Your task to perform on an android device: open device folders in google photos Image 0: 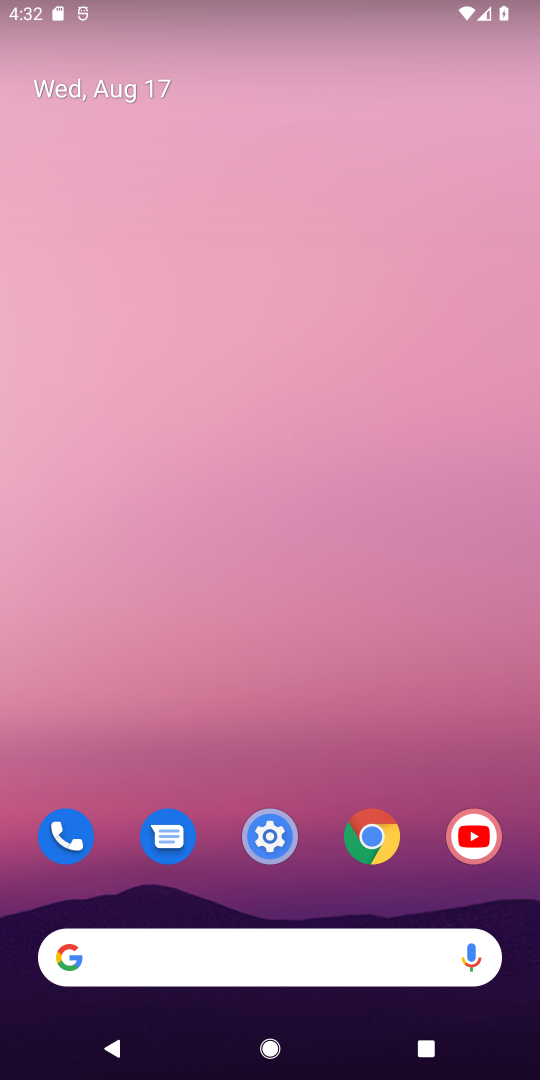
Step 0: press home button
Your task to perform on an android device: open device folders in google photos Image 1: 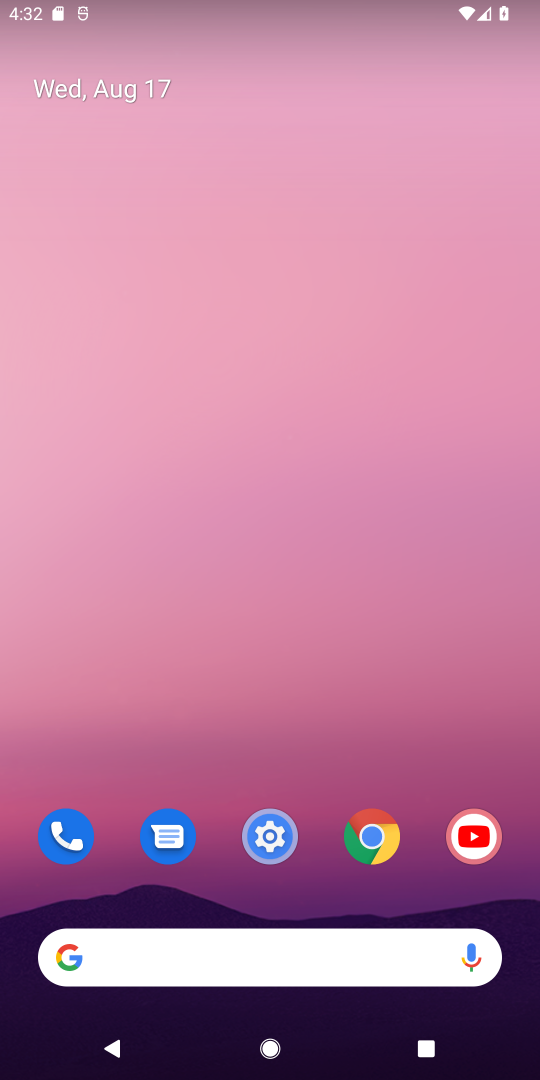
Step 1: drag from (290, 931) to (497, 192)
Your task to perform on an android device: open device folders in google photos Image 2: 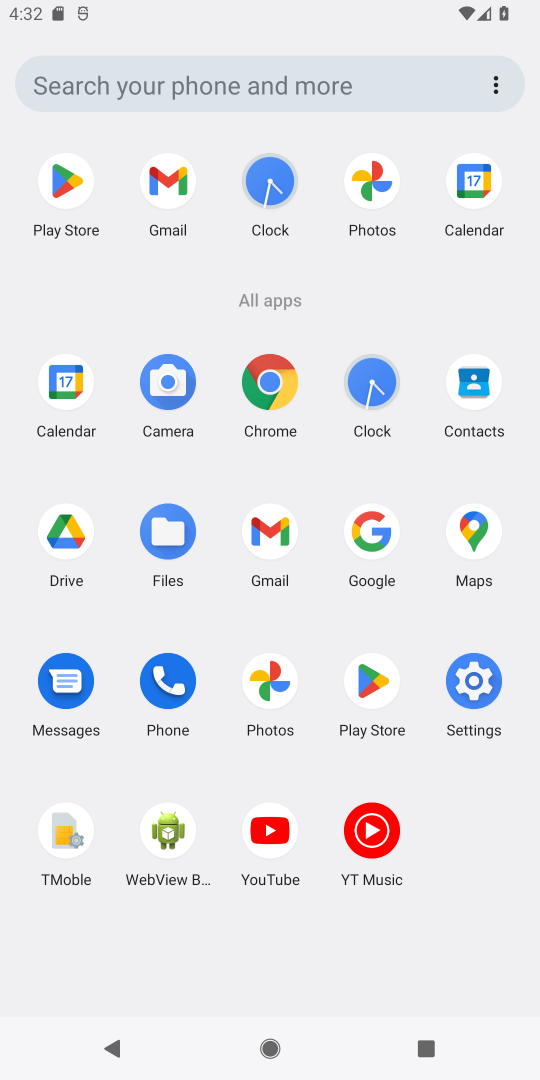
Step 2: click (278, 677)
Your task to perform on an android device: open device folders in google photos Image 3: 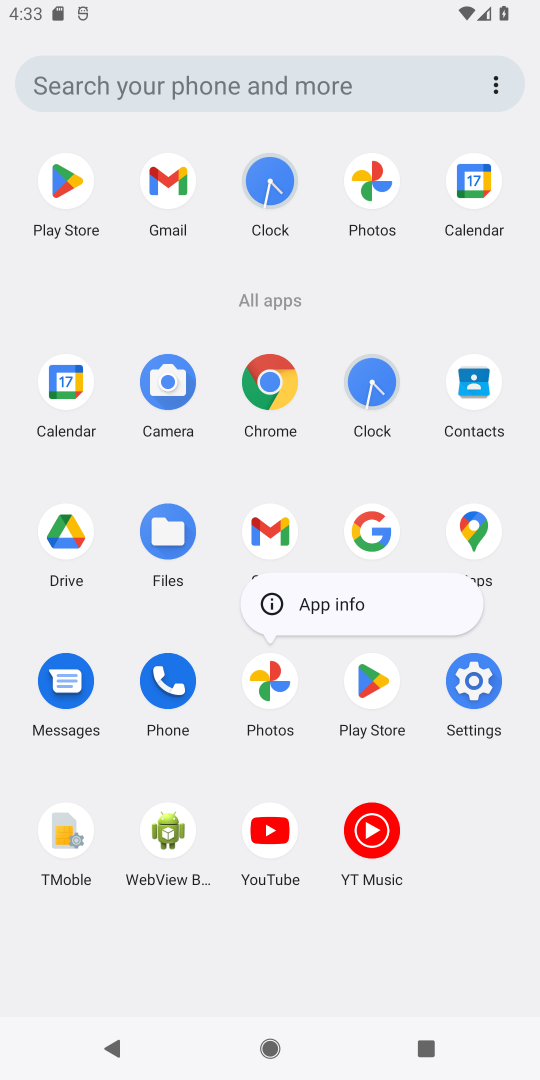
Step 3: click (266, 681)
Your task to perform on an android device: open device folders in google photos Image 4: 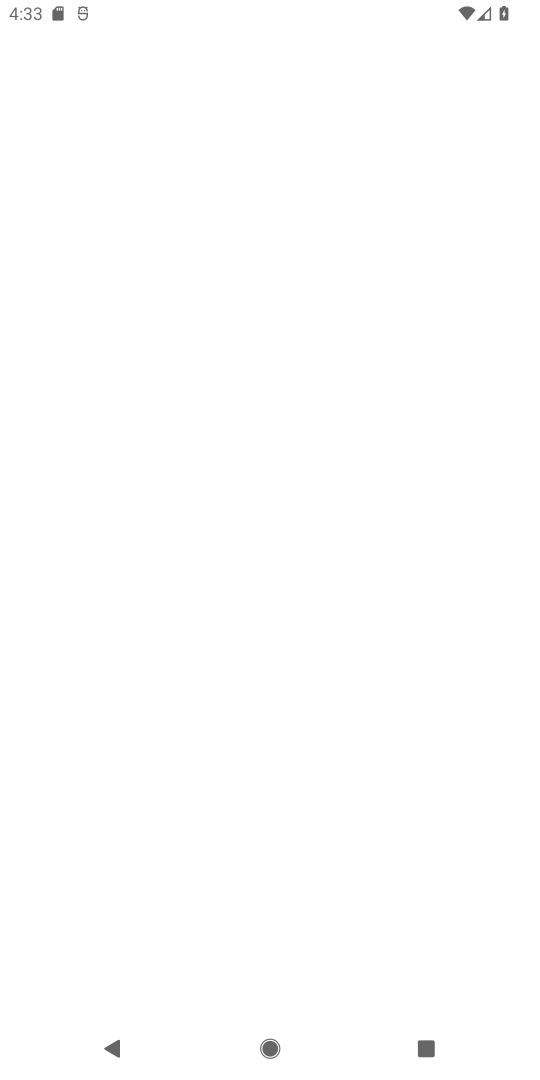
Step 4: drag from (212, 853) to (264, 742)
Your task to perform on an android device: open device folders in google photos Image 5: 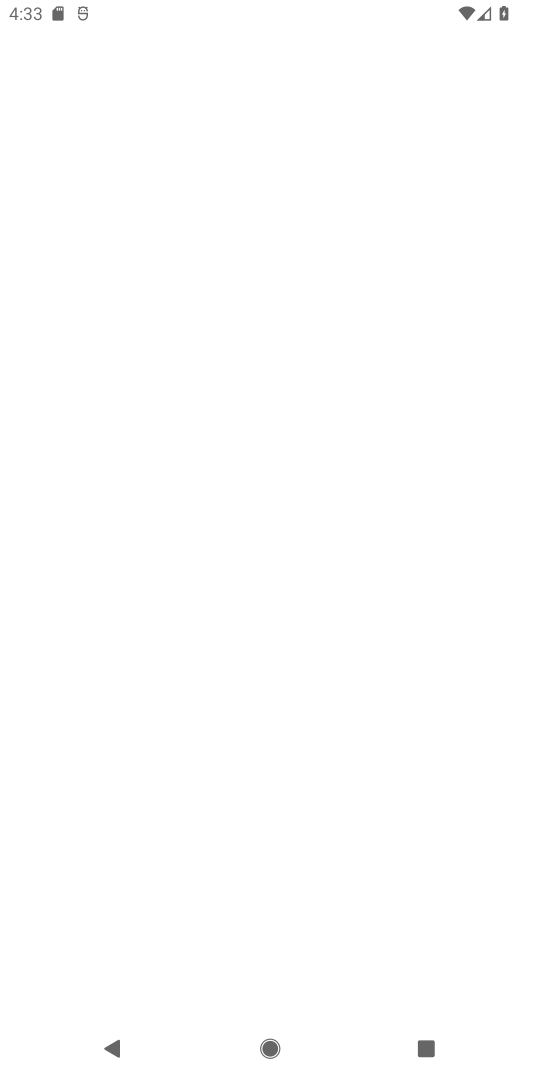
Step 5: press home button
Your task to perform on an android device: open device folders in google photos Image 6: 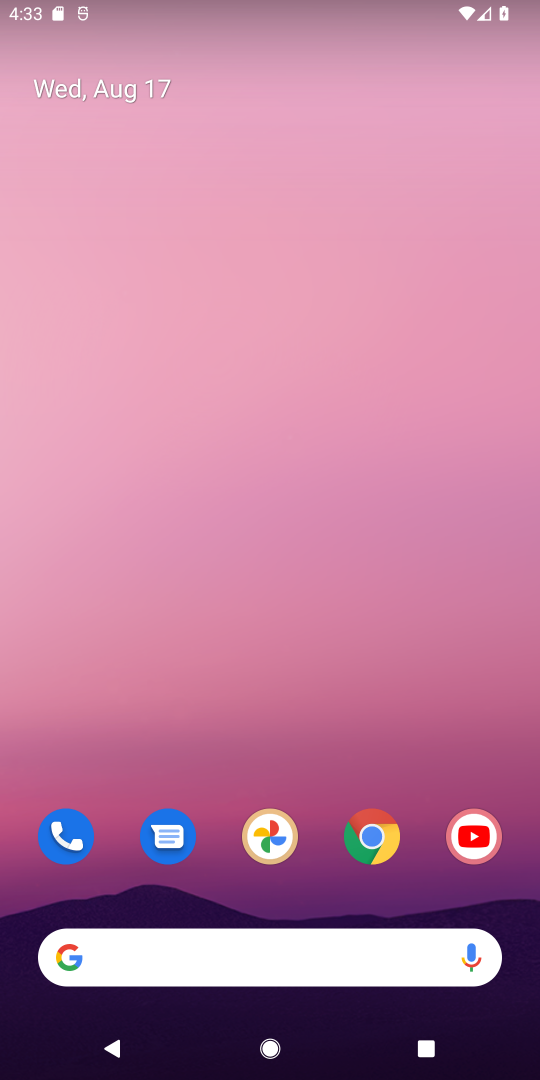
Step 6: click (266, 836)
Your task to perform on an android device: open device folders in google photos Image 7: 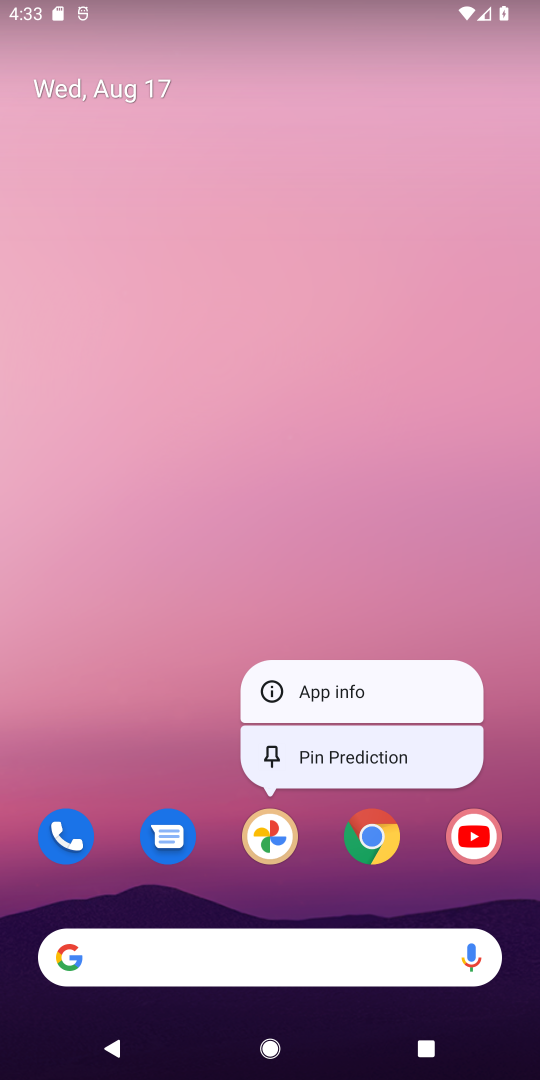
Step 7: click (266, 836)
Your task to perform on an android device: open device folders in google photos Image 8: 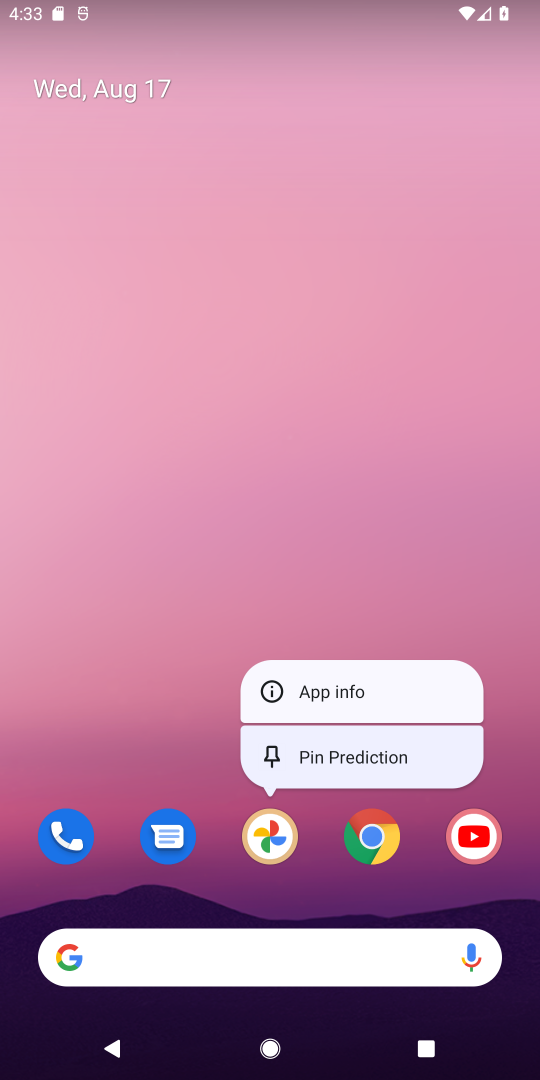
Step 8: click (272, 842)
Your task to perform on an android device: open device folders in google photos Image 9: 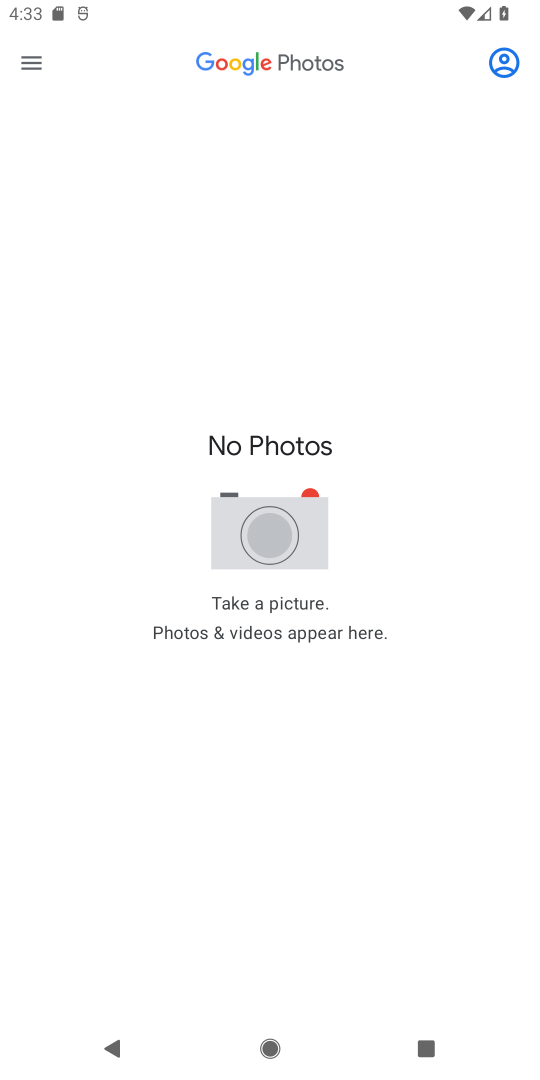
Step 9: click (39, 61)
Your task to perform on an android device: open device folders in google photos Image 10: 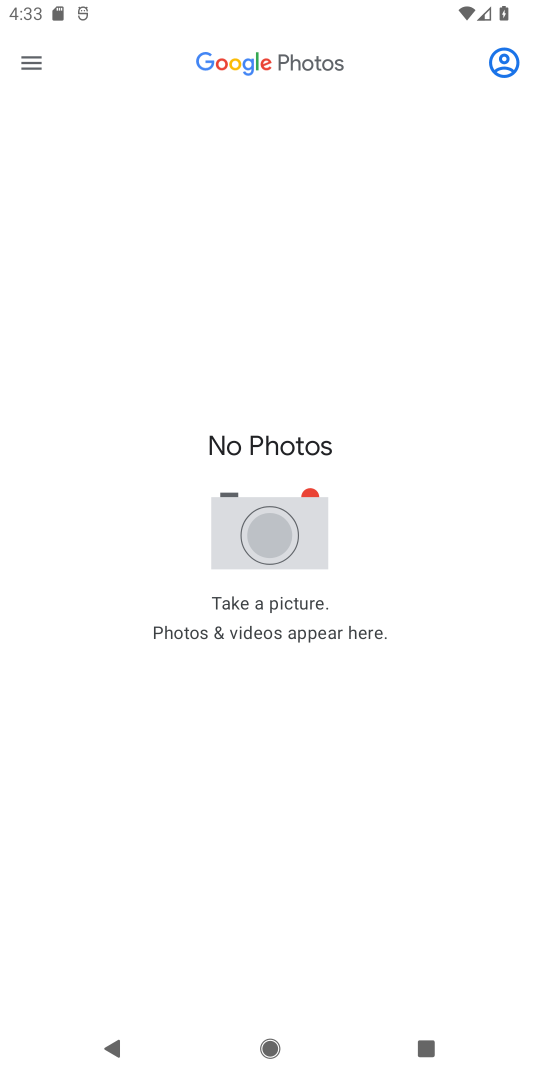
Step 10: click (26, 55)
Your task to perform on an android device: open device folders in google photos Image 11: 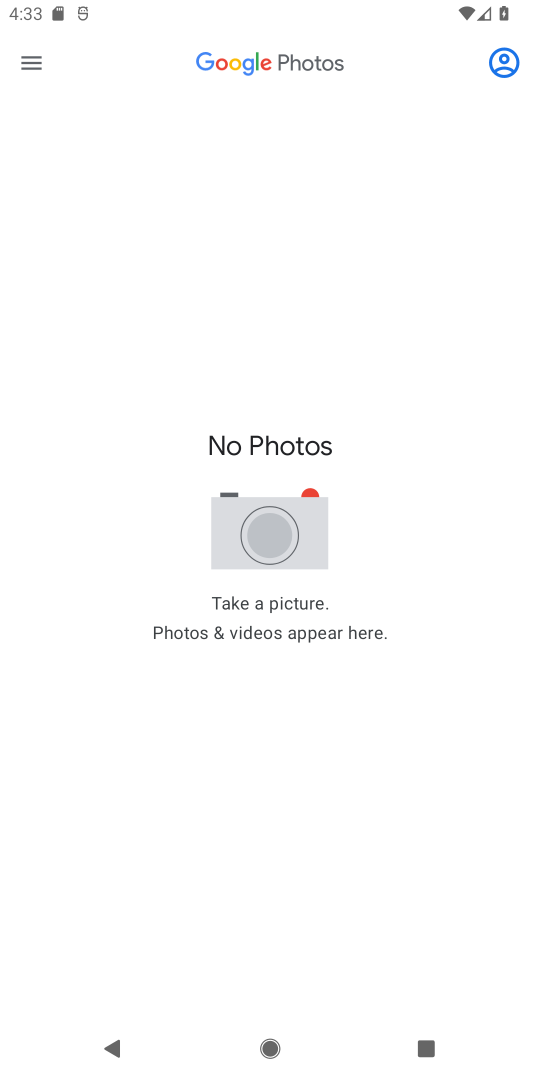
Step 11: click (34, 62)
Your task to perform on an android device: open device folders in google photos Image 12: 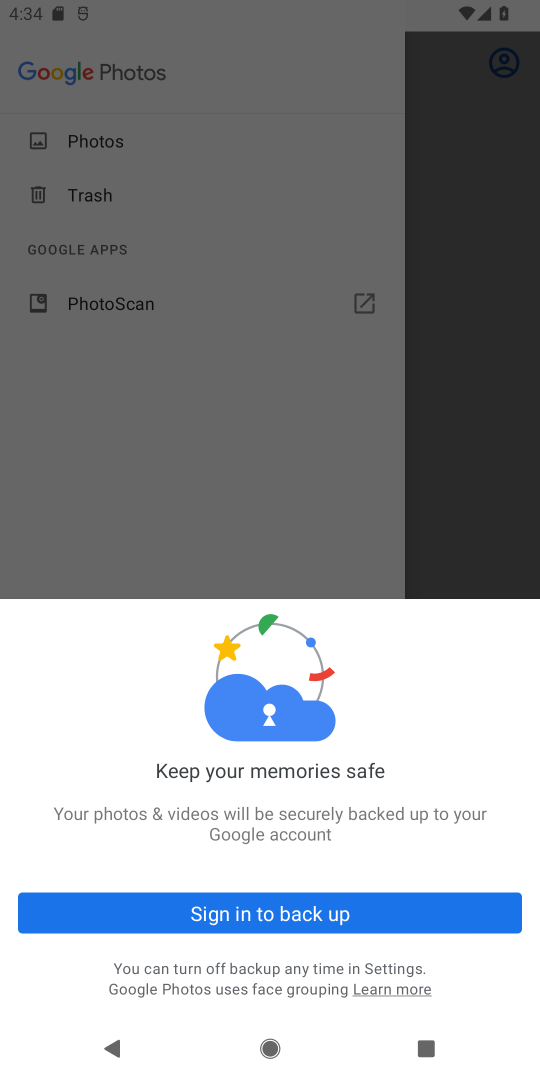
Step 12: click (397, 902)
Your task to perform on an android device: open device folders in google photos Image 13: 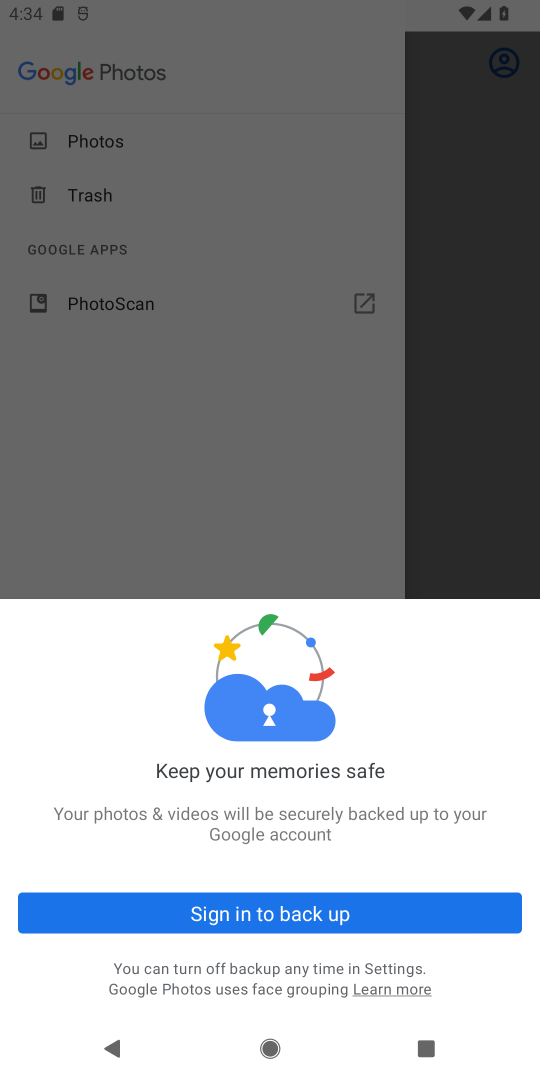
Step 13: click (380, 912)
Your task to perform on an android device: open device folders in google photos Image 14: 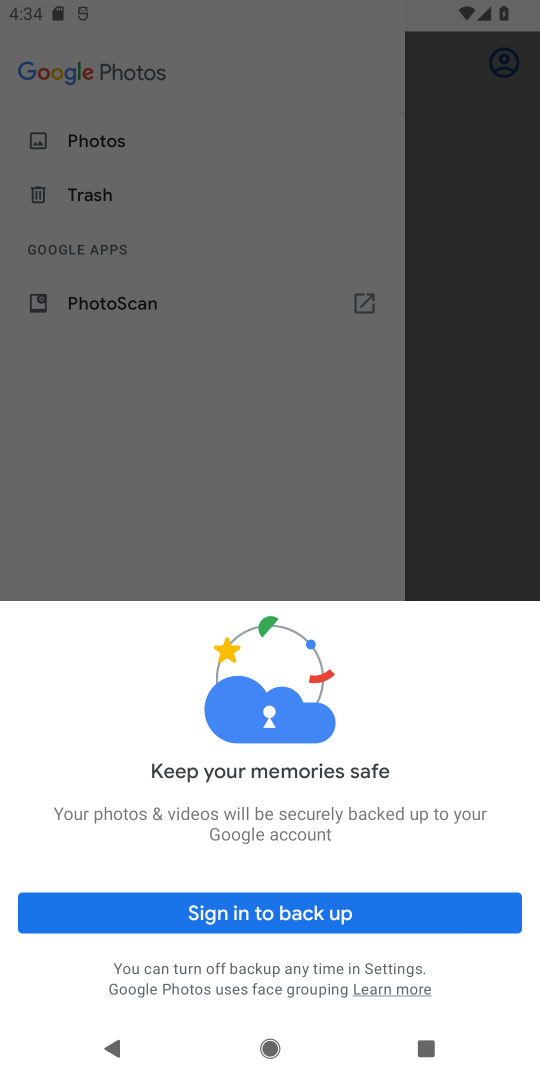
Step 14: click (293, 922)
Your task to perform on an android device: open device folders in google photos Image 15: 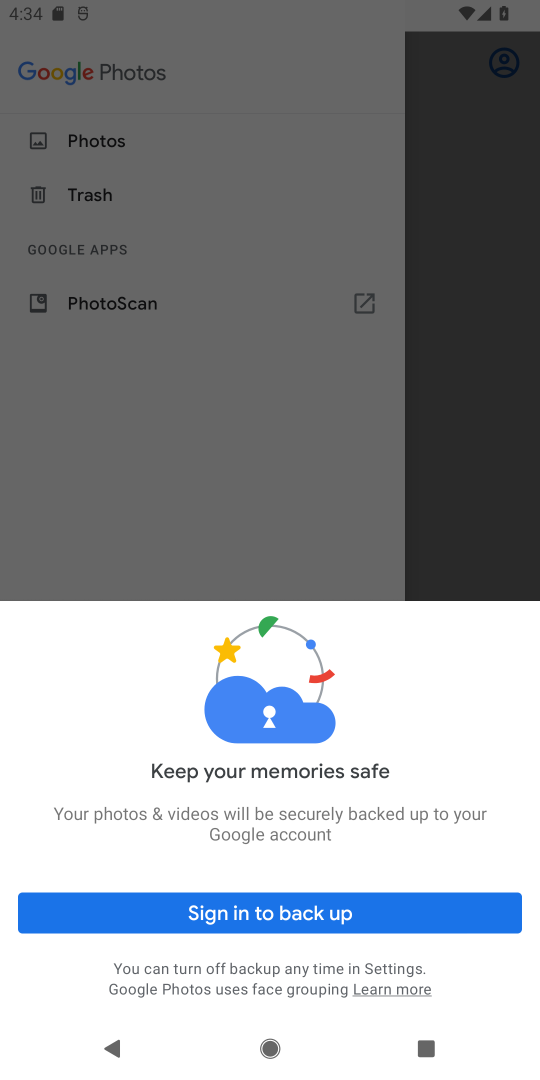
Step 15: click (271, 908)
Your task to perform on an android device: open device folders in google photos Image 16: 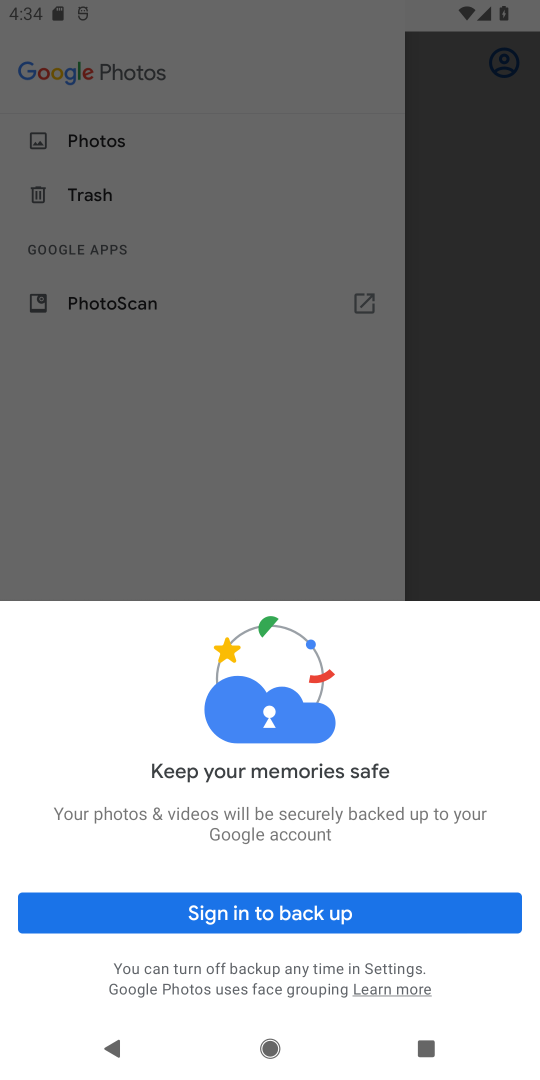
Step 16: click (271, 911)
Your task to perform on an android device: open device folders in google photos Image 17: 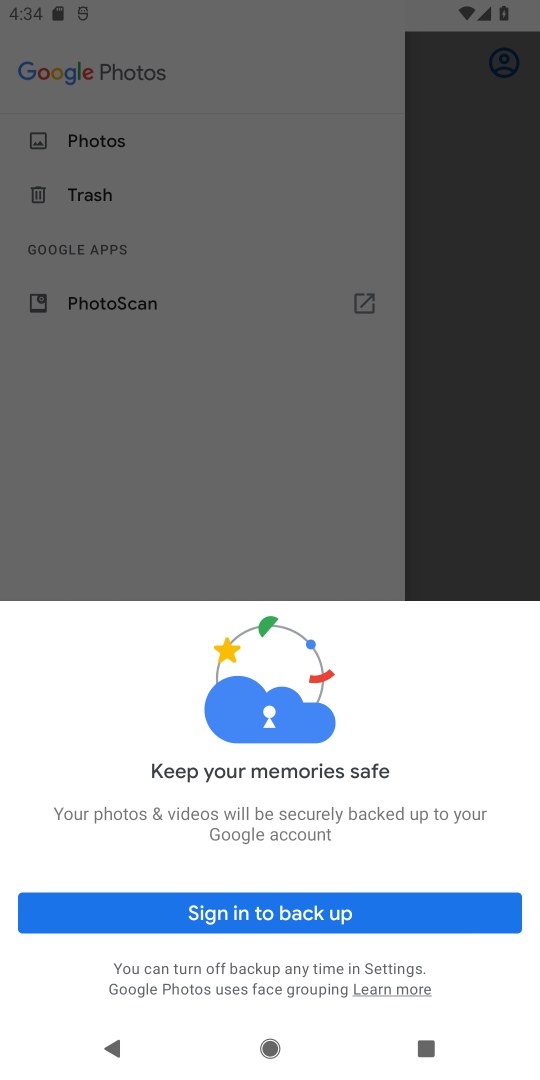
Step 17: task complete